Your task to perform on an android device: turn off smart reply in the gmail app Image 0: 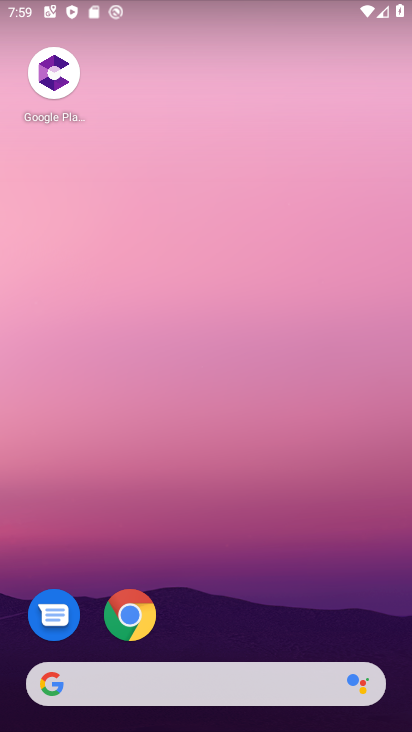
Step 0: drag from (199, 627) to (262, 53)
Your task to perform on an android device: turn off smart reply in the gmail app Image 1: 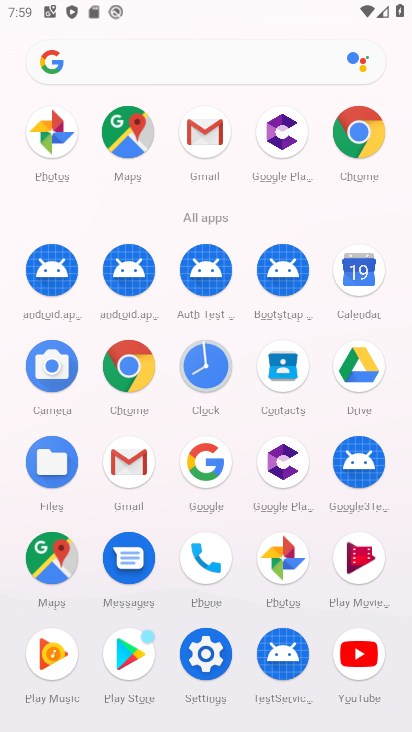
Step 1: click (129, 461)
Your task to perform on an android device: turn off smart reply in the gmail app Image 2: 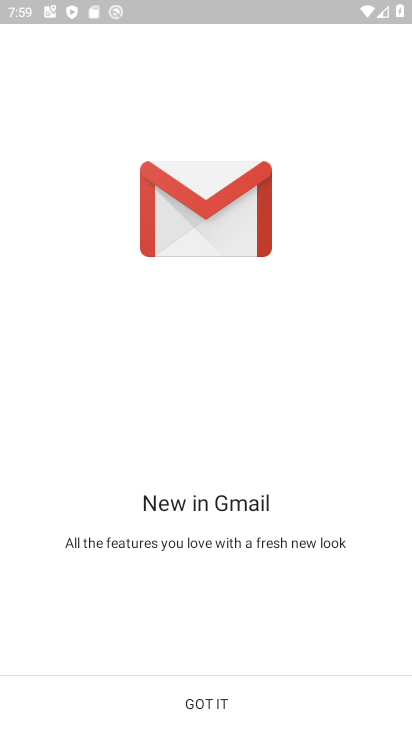
Step 2: click (206, 714)
Your task to perform on an android device: turn off smart reply in the gmail app Image 3: 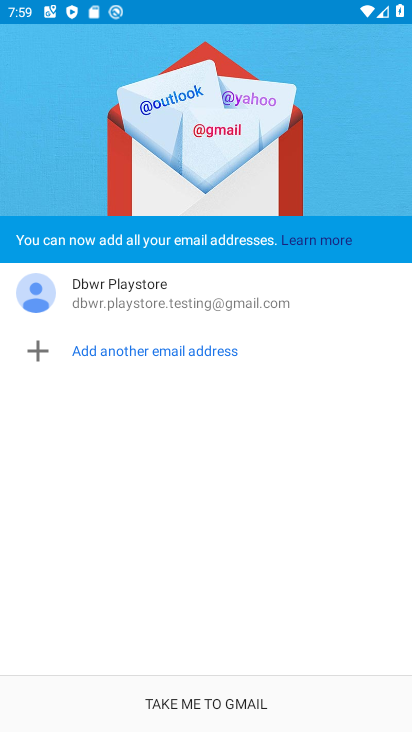
Step 3: click (208, 708)
Your task to perform on an android device: turn off smart reply in the gmail app Image 4: 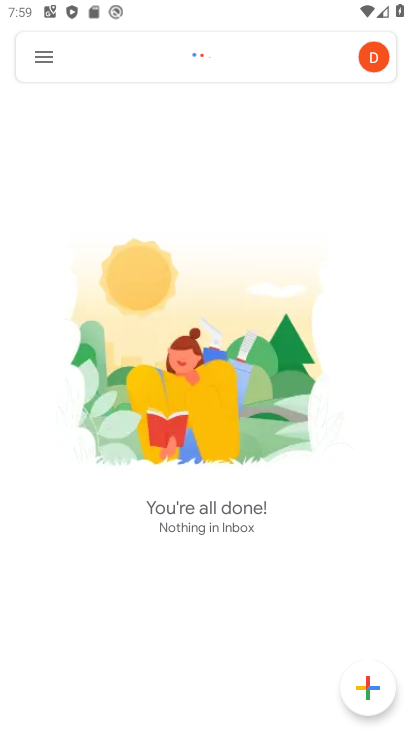
Step 4: click (50, 54)
Your task to perform on an android device: turn off smart reply in the gmail app Image 5: 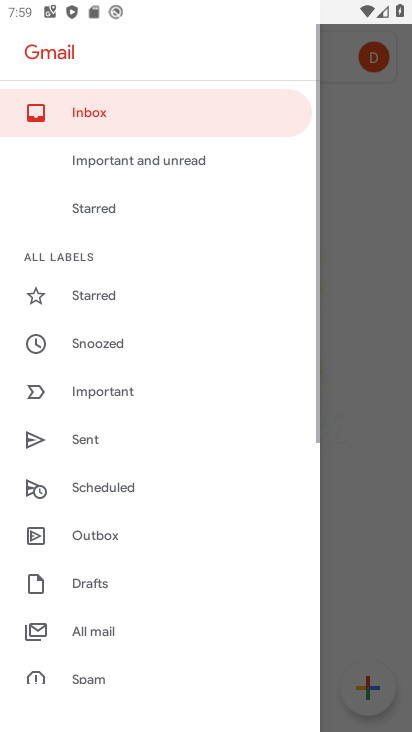
Step 5: drag from (123, 552) to (132, 224)
Your task to perform on an android device: turn off smart reply in the gmail app Image 6: 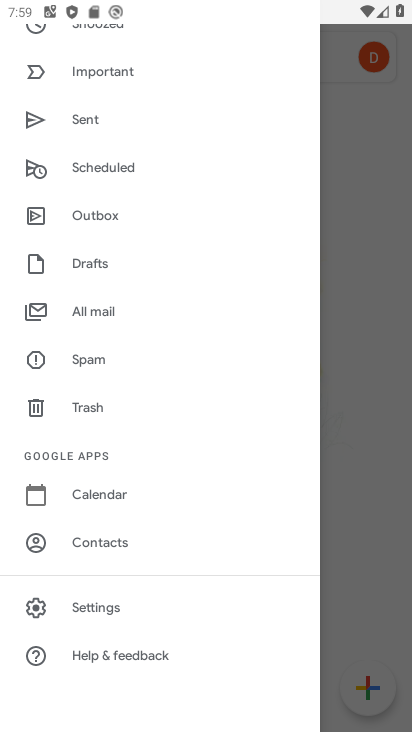
Step 6: click (98, 599)
Your task to perform on an android device: turn off smart reply in the gmail app Image 7: 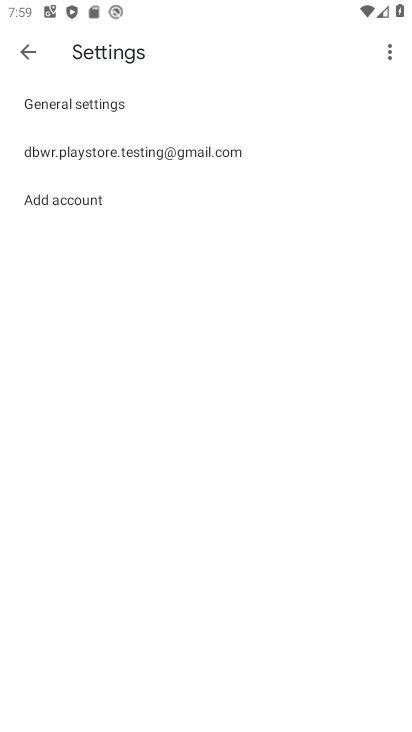
Step 7: click (109, 146)
Your task to perform on an android device: turn off smart reply in the gmail app Image 8: 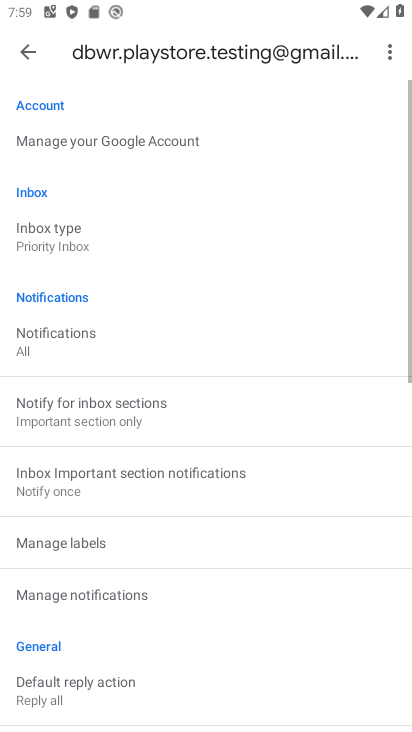
Step 8: drag from (205, 484) to (246, 175)
Your task to perform on an android device: turn off smart reply in the gmail app Image 9: 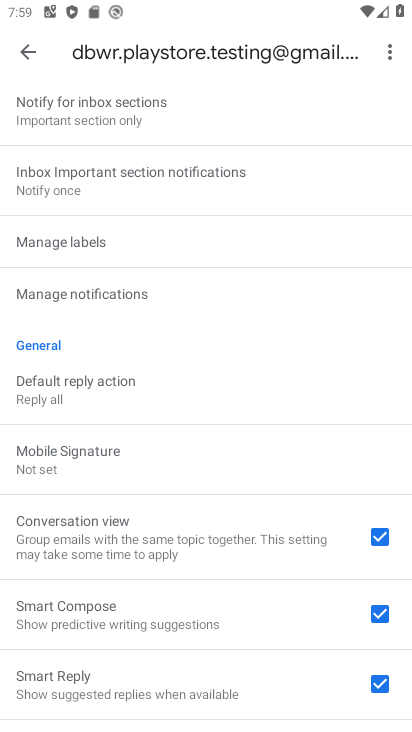
Step 9: click (381, 680)
Your task to perform on an android device: turn off smart reply in the gmail app Image 10: 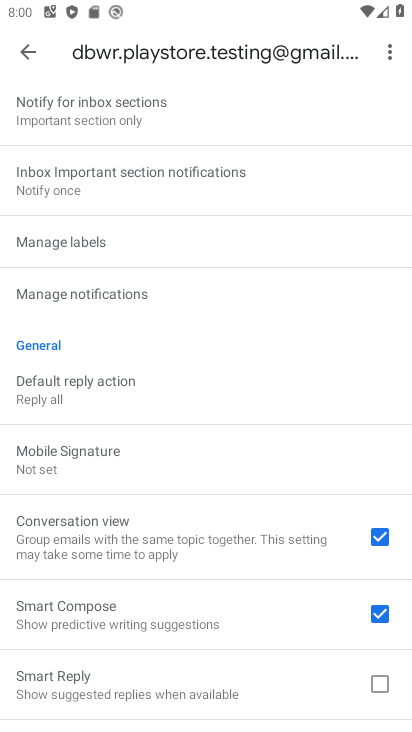
Step 10: task complete